Your task to perform on an android device: Toggle the flashlight Image 0: 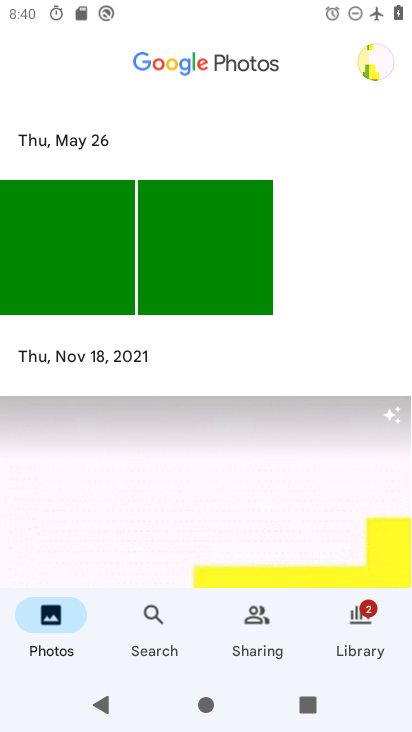
Step 0: press home button
Your task to perform on an android device: Toggle the flashlight Image 1: 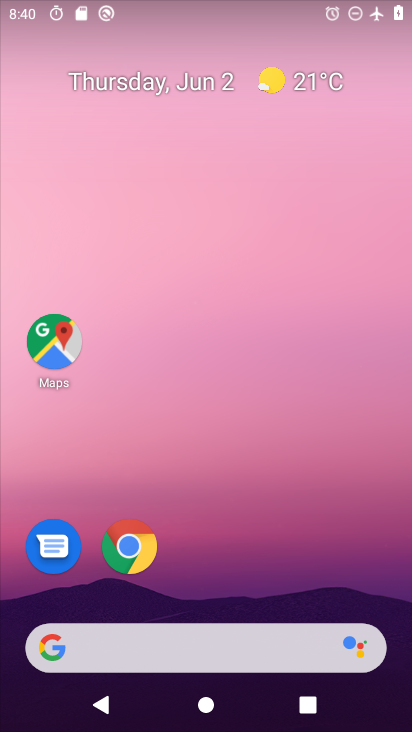
Step 1: drag from (306, 579) to (296, 85)
Your task to perform on an android device: Toggle the flashlight Image 2: 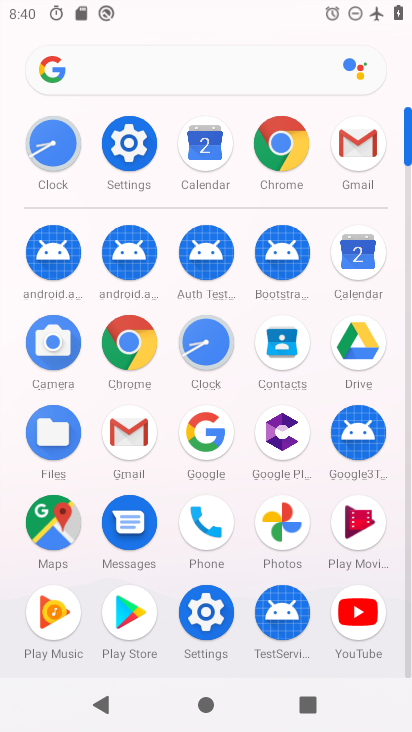
Step 2: click (113, 136)
Your task to perform on an android device: Toggle the flashlight Image 3: 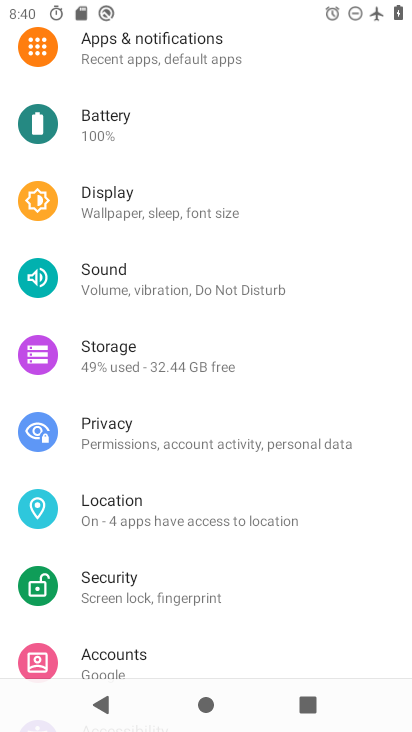
Step 3: drag from (248, 169) to (269, 556)
Your task to perform on an android device: Toggle the flashlight Image 4: 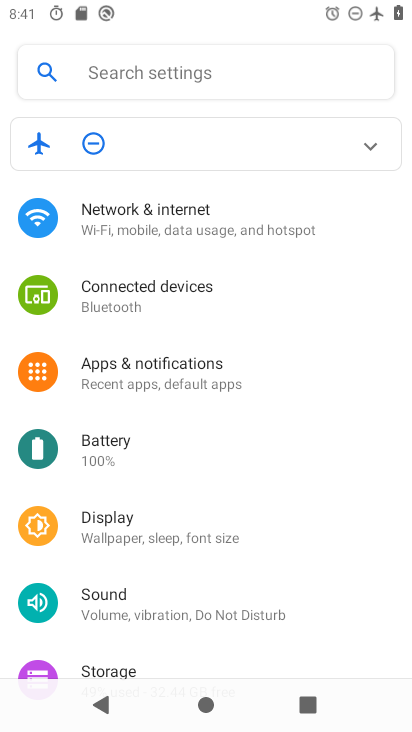
Step 4: click (201, 75)
Your task to perform on an android device: Toggle the flashlight Image 5: 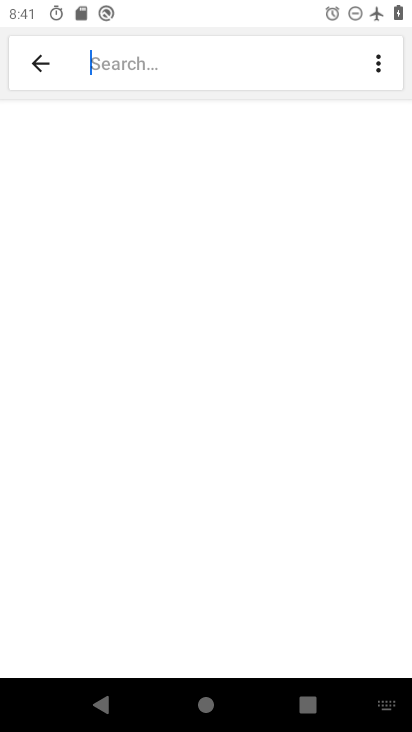
Step 5: type "flashlight"
Your task to perform on an android device: Toggle the flashlight Image 6: 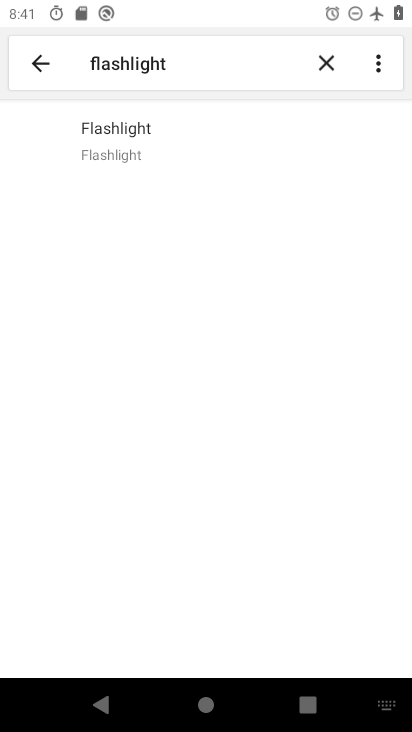
Step 6: click (182, 130)
Your task to perform on an android device: Toggle the flashlight Image 7: 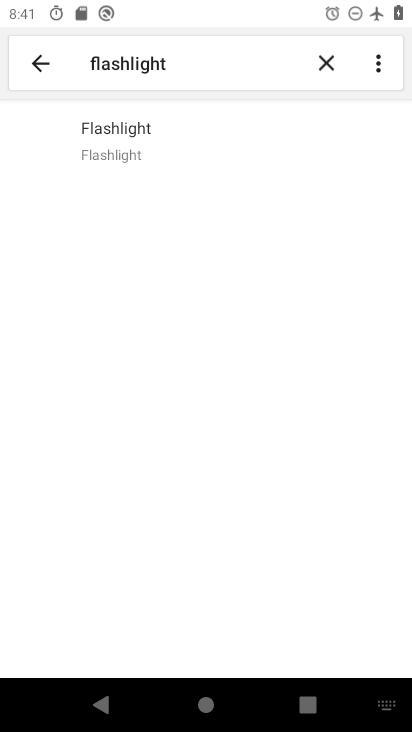
Step 7: click (195, 152)
Your task to perform on an android device: Toggle the flashlight Image 8: 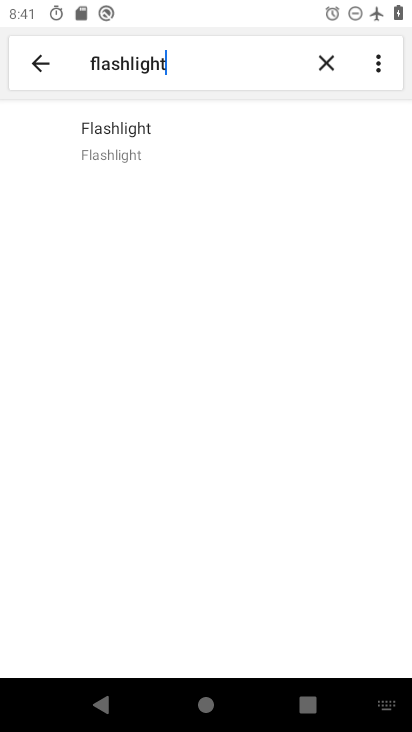
Step 8: task complete